Your task to perform on an android device: Search for duracell triple a on costco.com, select the first entry, and add it to the cart. Image 0: 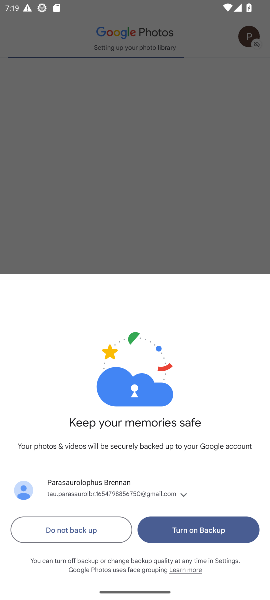
Step 0: press home button
Your task to perform on an android device: Search for duracell triple a on costco.com, select the first entry, and add it to the cart. Image 1: 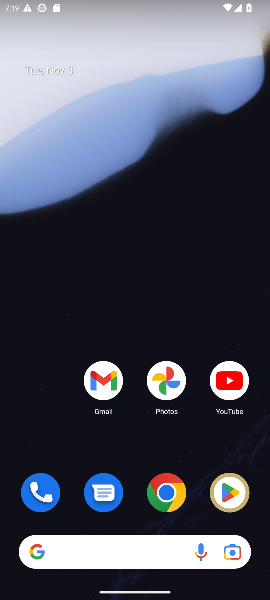
Step 1: click (168, 488)
Your task to perform on an android device: Search for duracell triple a on costco.com, select the first entry, and add it to the cart. Image 2: 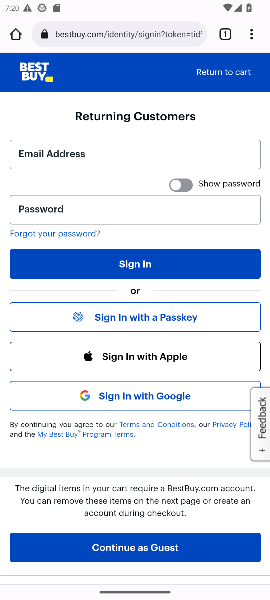
Step 2: click (166, 31)
Your task to perform on an android device: Search for duracell triple a on costco.com, select the first entry, and add it to the cart. Image 3: 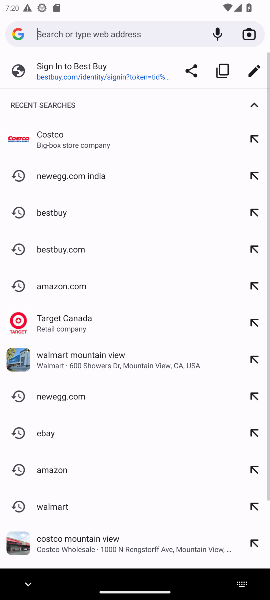
Step 3: type "costco.com"
Your task to perform on an android device: Search for duracell triple a on costco.com, select the first entry, and add it to the cart. Image 4: 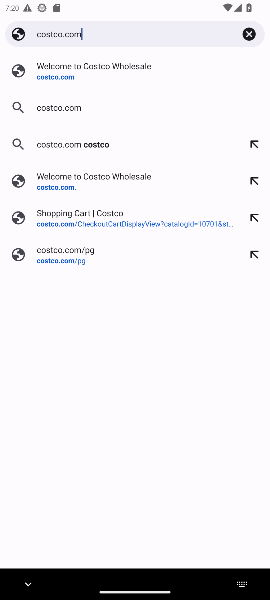
Step 4: click (65, 109)
Your task to perform on an android device: Search for duracell triple a on costco.com, select the first entry, and add it to the cart. Image 5: 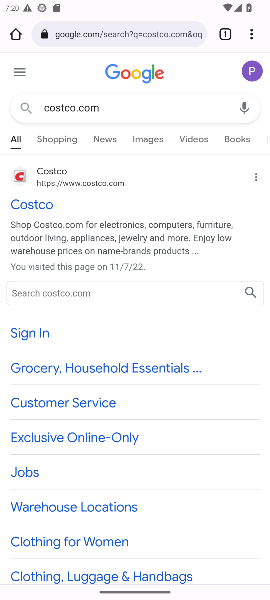
Step 5: click (90, 182)
Your task to perform on an android device: Search for duracell triple a on costco.com, select the first entry, and add it to the cart. Image 6: 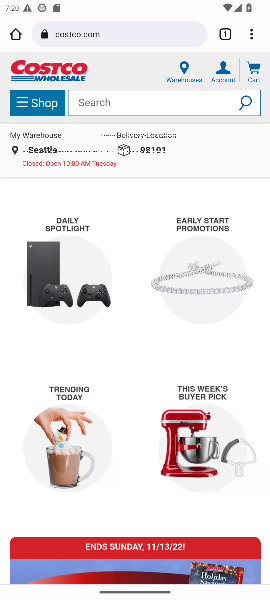
Step 6: click (126, 102)
Your task to perform on an android device: Search for duracell triple a on costco.com, select the first entry, and add it to the cart. Image 7: 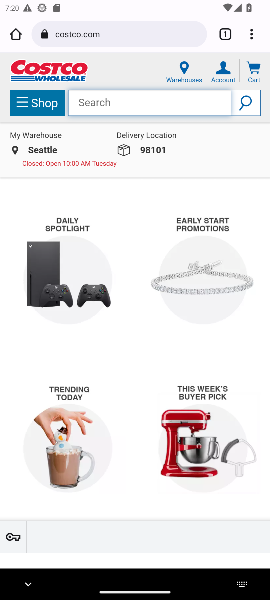
Step 7: type " duracell triple a"
Your task to perform on an android device: Search for duracell triple a on costco.com, select the first entry, and add it to the cart. Image 8: 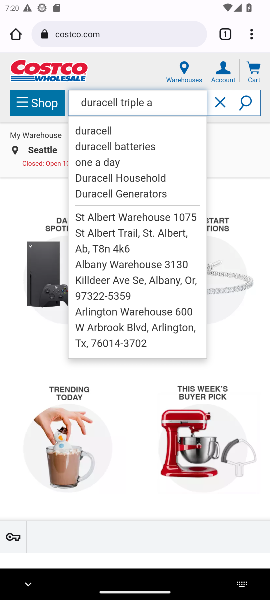
Step 8: click (229, 138)
Your task to perform on an android device: Search for duracell triple a on costco.com, select the first entry, and add it to the cart. Image 9: 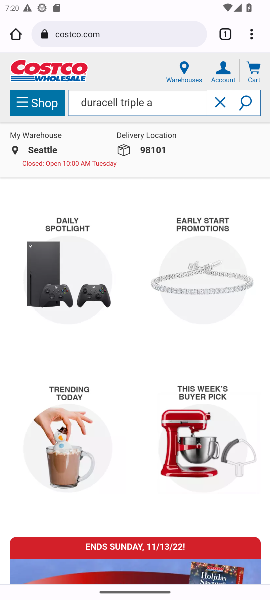
Step 9: task complete